Your task to perform on an android device: change the upload size in google photos Image 0: 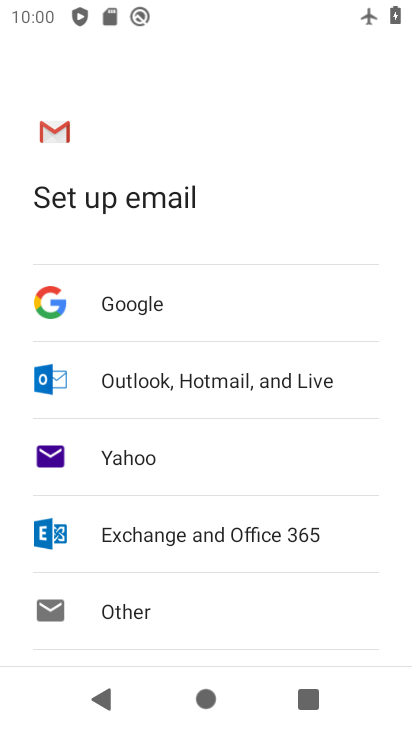
Step 0: press home button
Your task to perform on an android device: change the upload size in google photos Image 1: 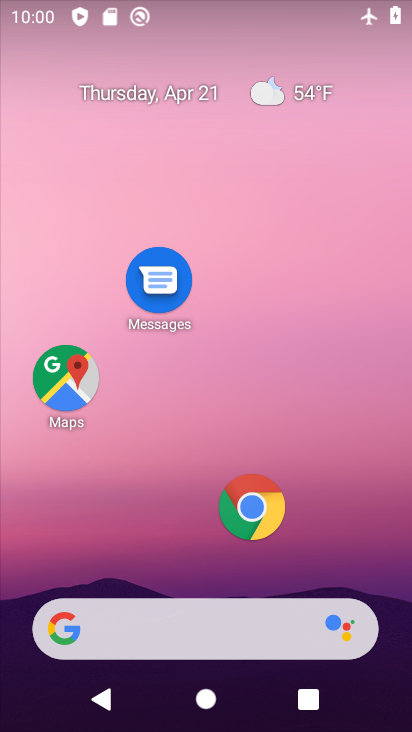
Step 1: drag from (146, 513) to (138, 46)
Your task to perform on an android device: change the upload size in google photos Image 2: 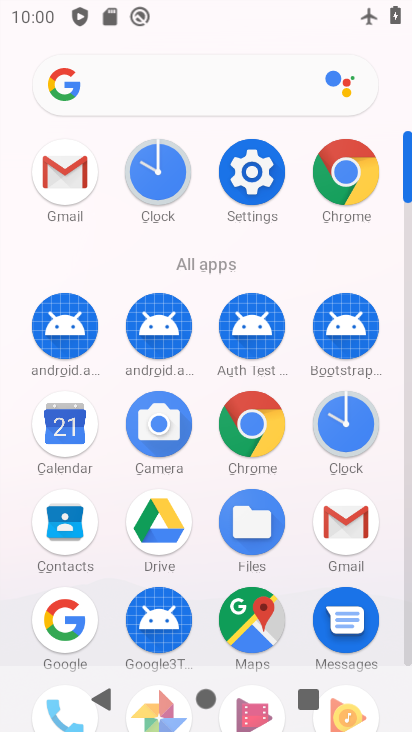
Step 2: drag from (197, 422) to (171, 237)
Your task to perform on an android device: change the upload size in google photos Image 3: 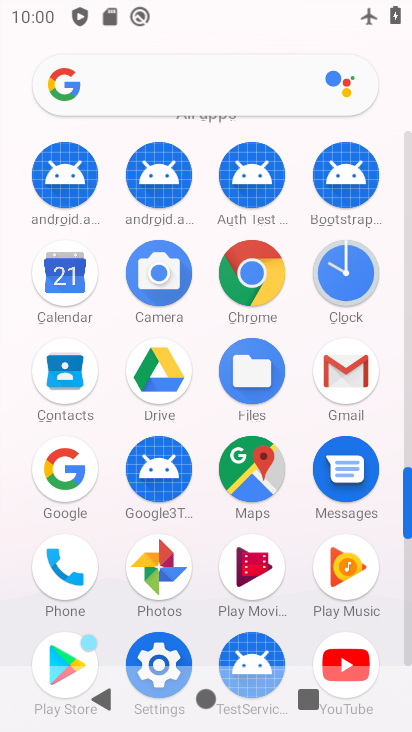
Step 3: click (158, 566)
Your task to perform on an android device: change the upload size in google photos Image 4: 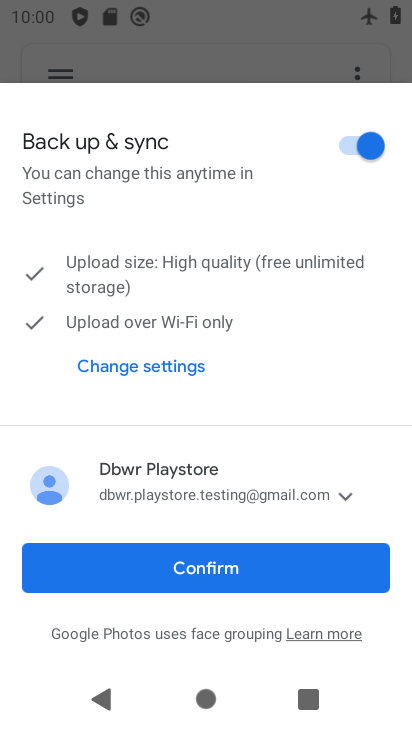
Step 4: click (193, 552)
Your task to perform on an android device: change the upload size in google photos Image 5: 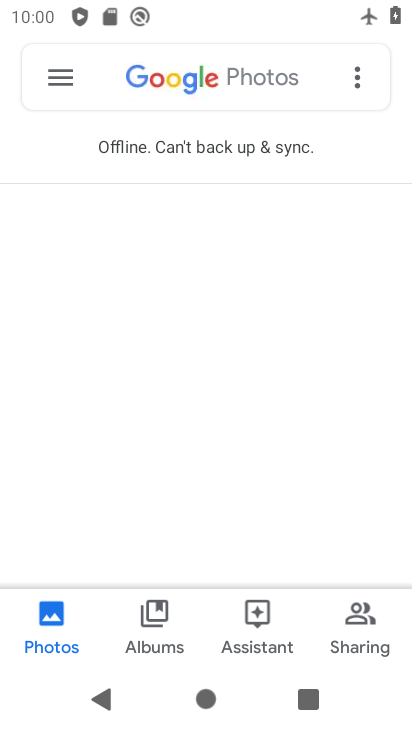
Step 5: click (52, 80)
Your task to perform on an android device: change the upload size in google photos Image 6: 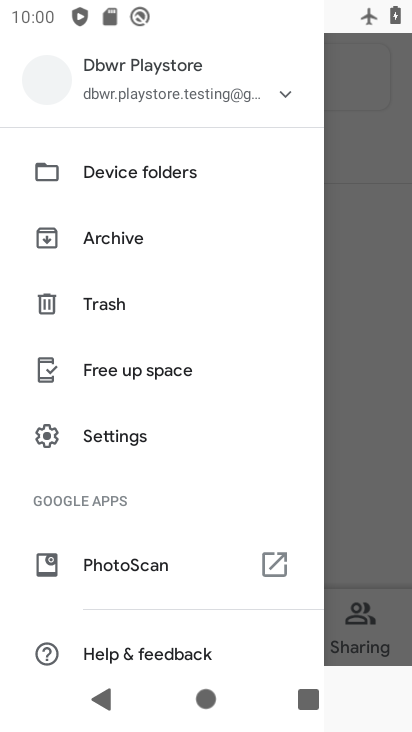
Step 6: click (139, 450)
Your task to perform on an android device: change the upload size in google photos Image 7: 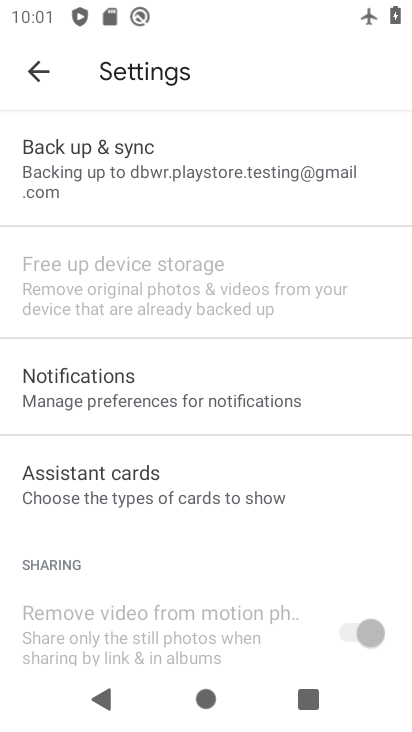
Step 7: click (144, 170)
Your task to perform on an android device: change the upload size in google photos Image 8: 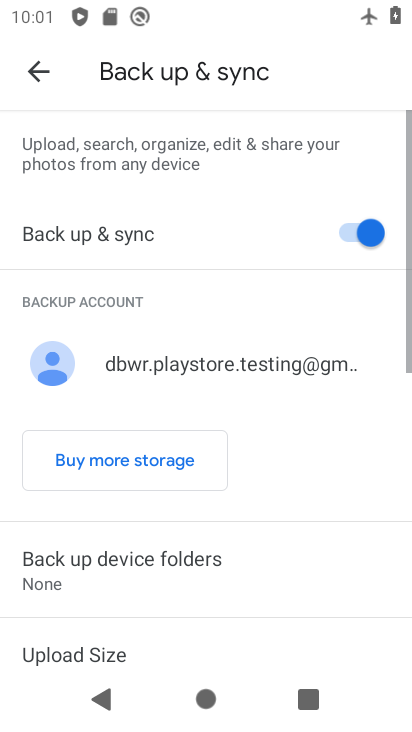
Step 8: drag from (272, 578) to (259, 386)
Your task to perform on an android device: change the upload size in google photos Image 9: 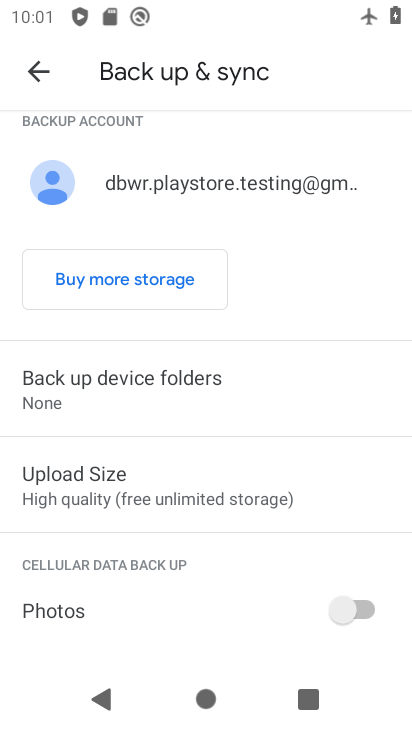
Step 9: click (169, 483)
Your task to perform on an android device: change the upload size in google photos Image 10: 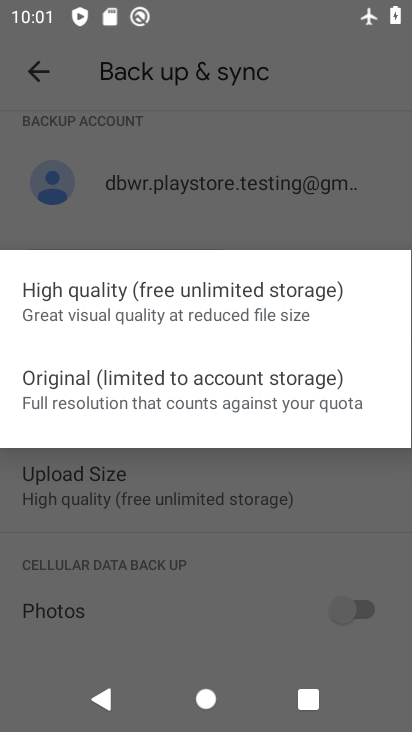
Step 10: click (125, 386)
Your task to perform on an android device: change the upload size in google photos Image 11: 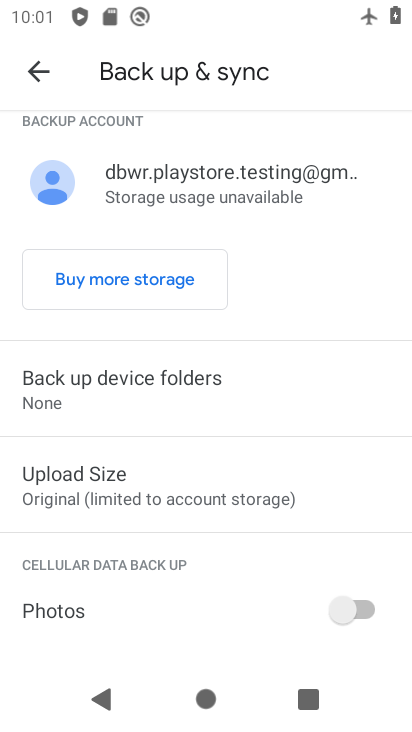
Step 11: task complete